Your task to perform on an android device: open the mobile data screen to see how much data has been used Image 0: 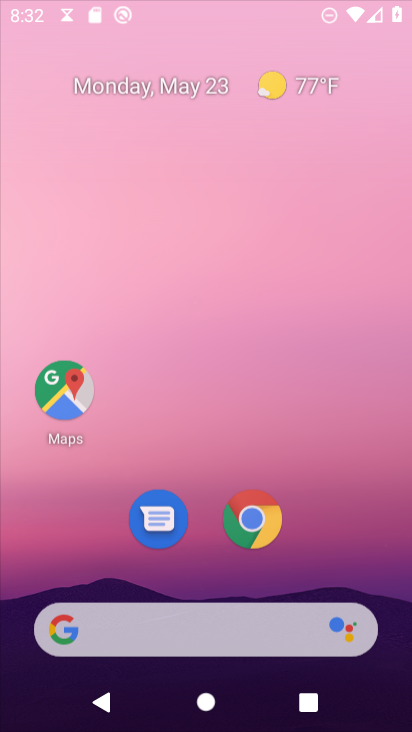
Step 0: press home button
Your task to perform on an android device: open the mobile data screen to see how much data has been used Image 1: 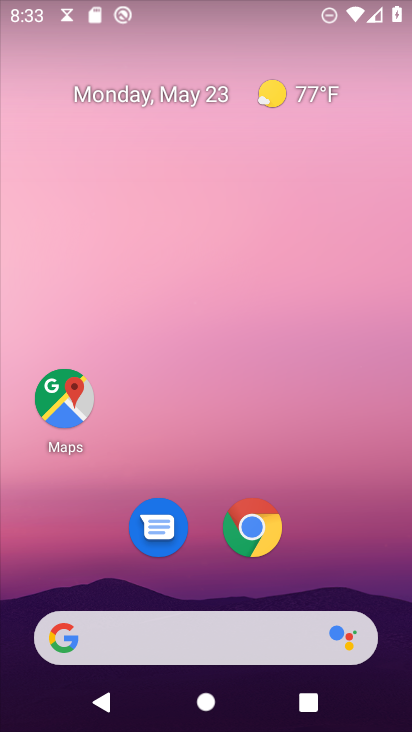
Step 1: drag from (230, 647) to (268, 0)
Your task to perform on an android device: open the mobile data screen to see how much data has been used Image 2: 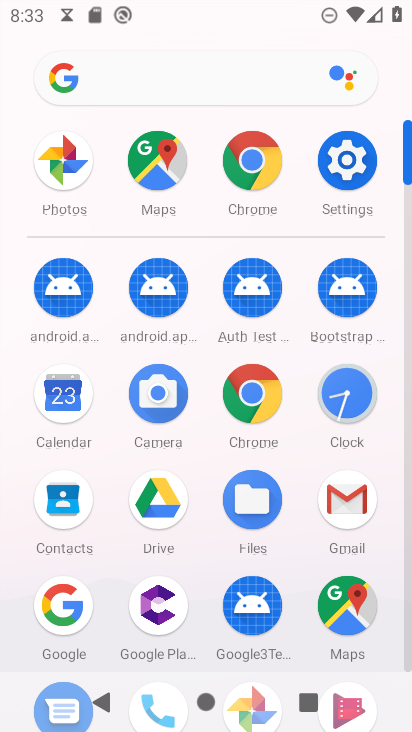
Step 2: click (325, 171)
Your task to perform on an android device: open the mobile data screen to see how much data has been used Image 3: 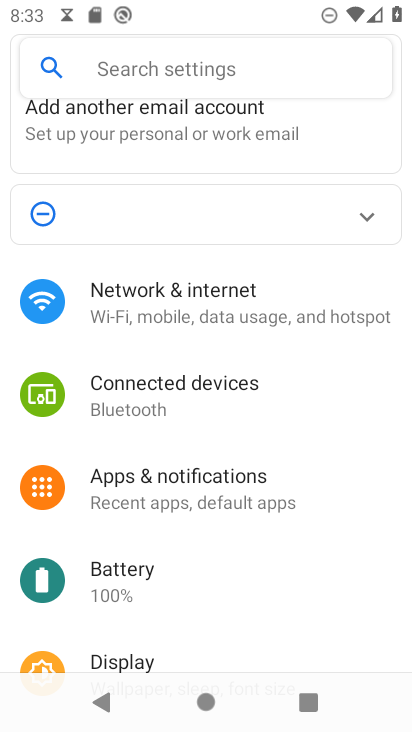
Step 3: click (168, 73)
Your task to perform on an android device: open the mobile data screen to see how much data has been used Image 4: 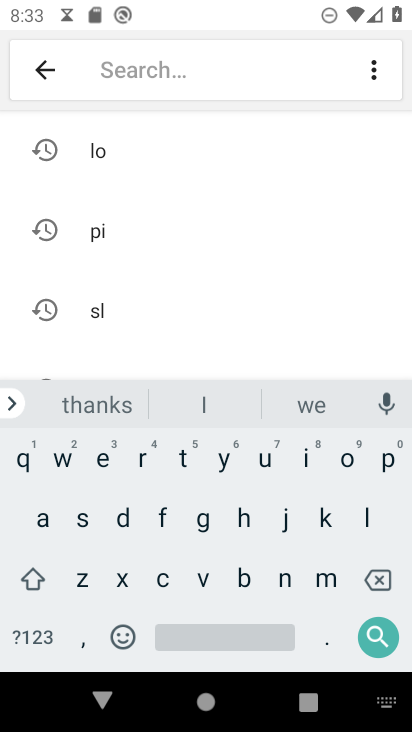
Step 4: click (123, 514)
Your task to perform on an android device: open the mobile data screen to see how much data has been used Image 5: 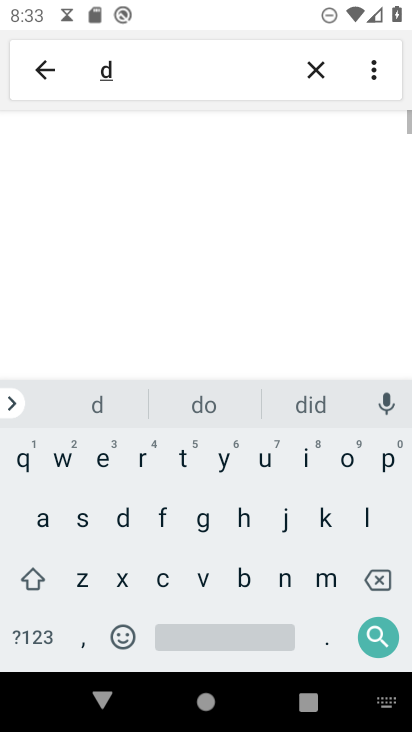
Step 5: click (42, 522)
Your task to perform on an android device: open the mobile data screen to see how much data has been used Image 6: 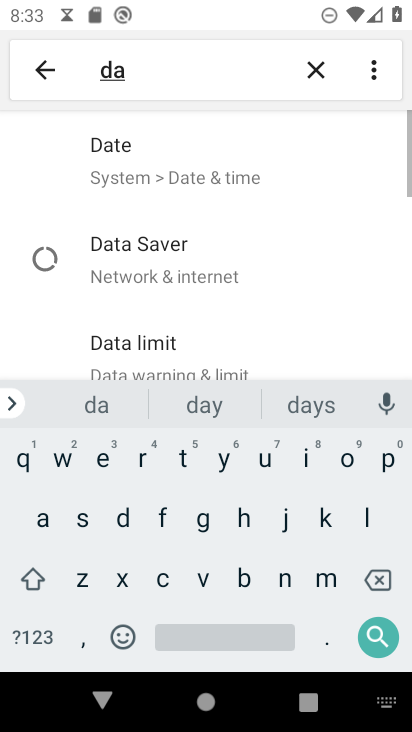
Step 6: click (185, 466)
Your task to perform on an android device: open the mobile data screen to see how much data has been used Image 7: 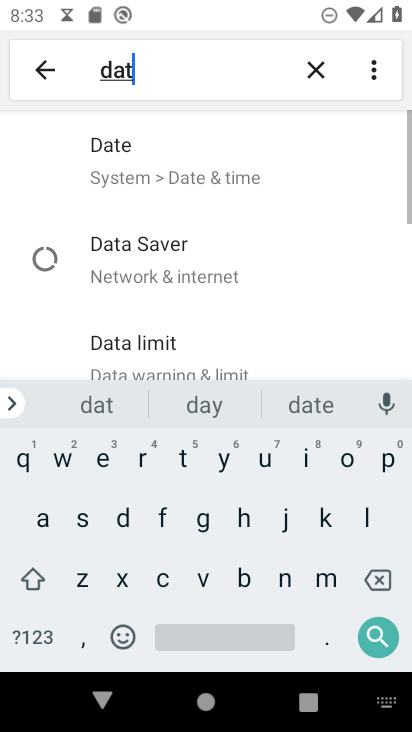
Step 7: click (36, 520)
Your task to perform on an android device: open the mobile data screen to see how much data has been used Image 8: 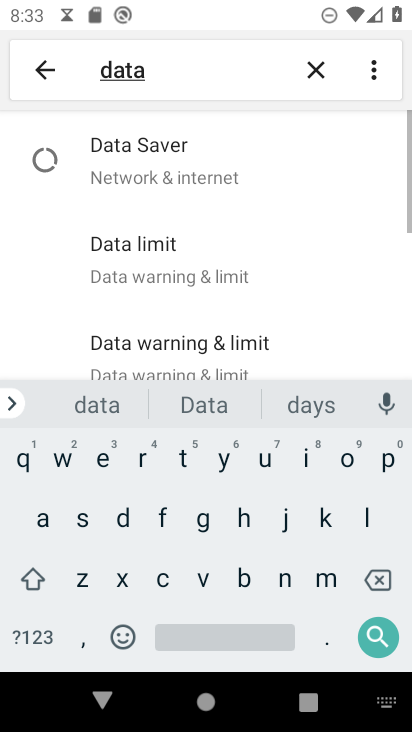
Step 8: click (236, 633)
Your task to perform on an android device: open the mobile data screen to see how much data has been used Image 9: 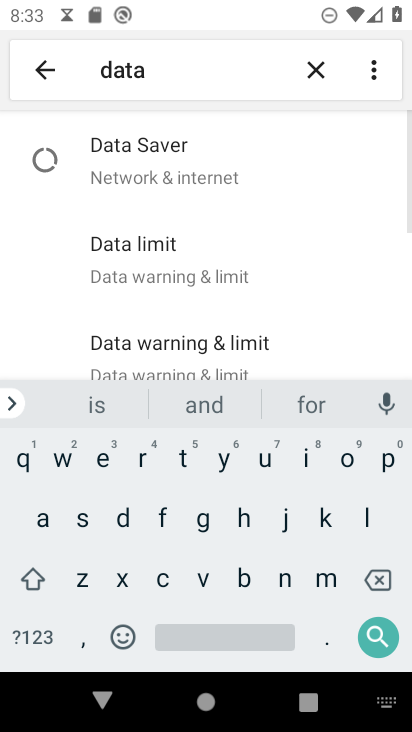
Step 9: click (262, 458)
Your task to perform on an android device: open the mobile data screen to see how much data has been used Image 10: 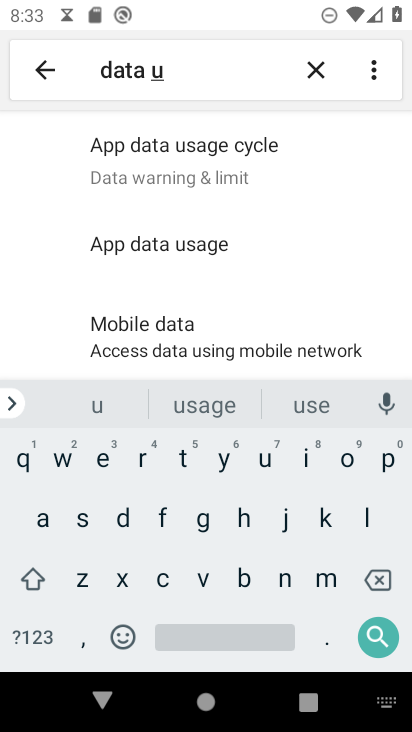
Step 10: click (159, 246)
Your task to perform on an android device: open the mobile data screen to see how much data has been used Image 11: 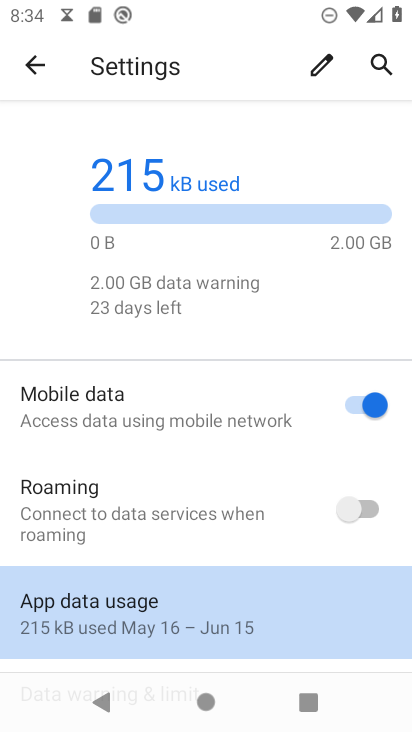
Step 11: click (109, 614)
Your task to perform on an android device: open the mobile data screen to see how much data has been used Image 12: 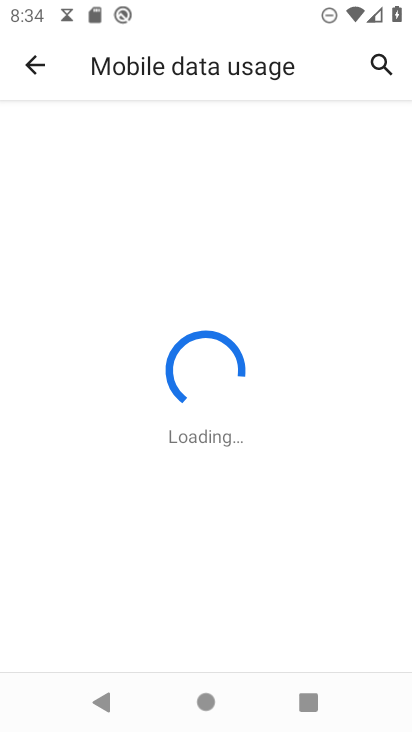
Step 12: task complete